Your task to perform on an android device: open app "Flipkart Online Shopping App" Image 0: 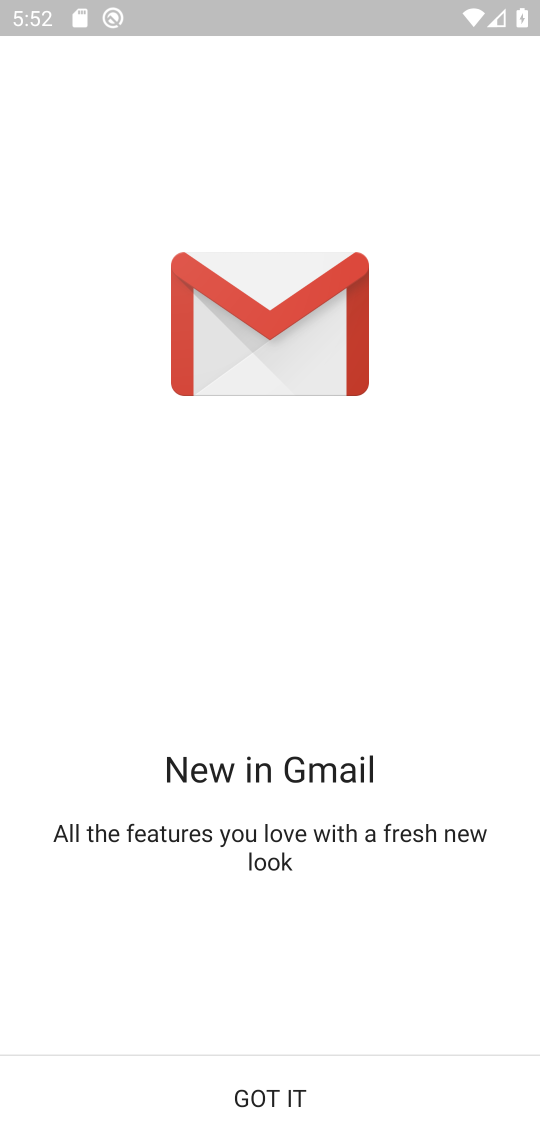
Step 0: press home button
Your task to perform on an android device: open app "Flipkart Online Shopping App" Image 1: 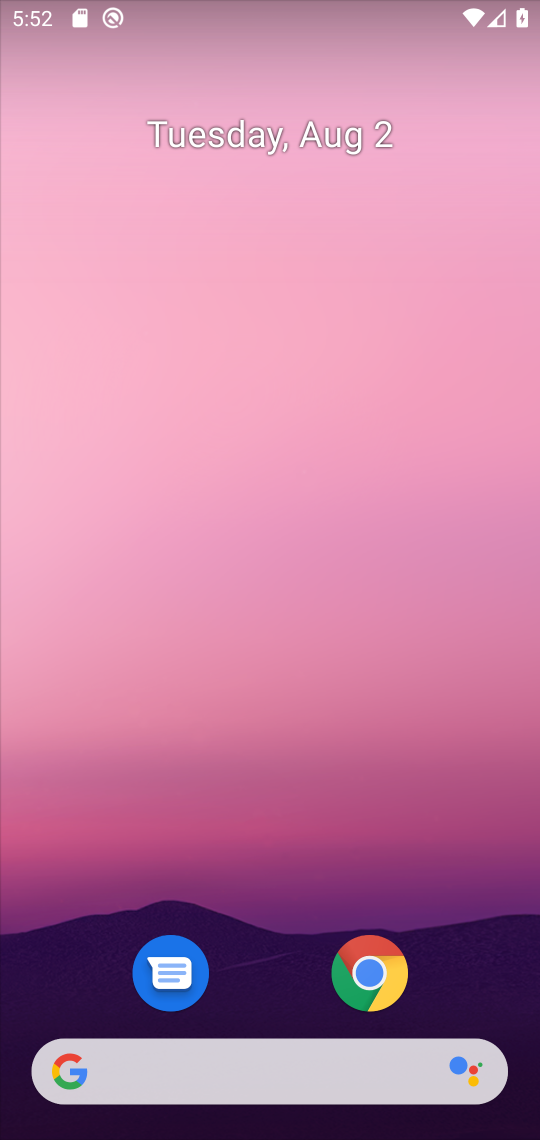
Step 1: drag from (237, 939) to (237, 179)
Your task to perform on an android device: open app "Flipkart Online Shopping App" Image 2: 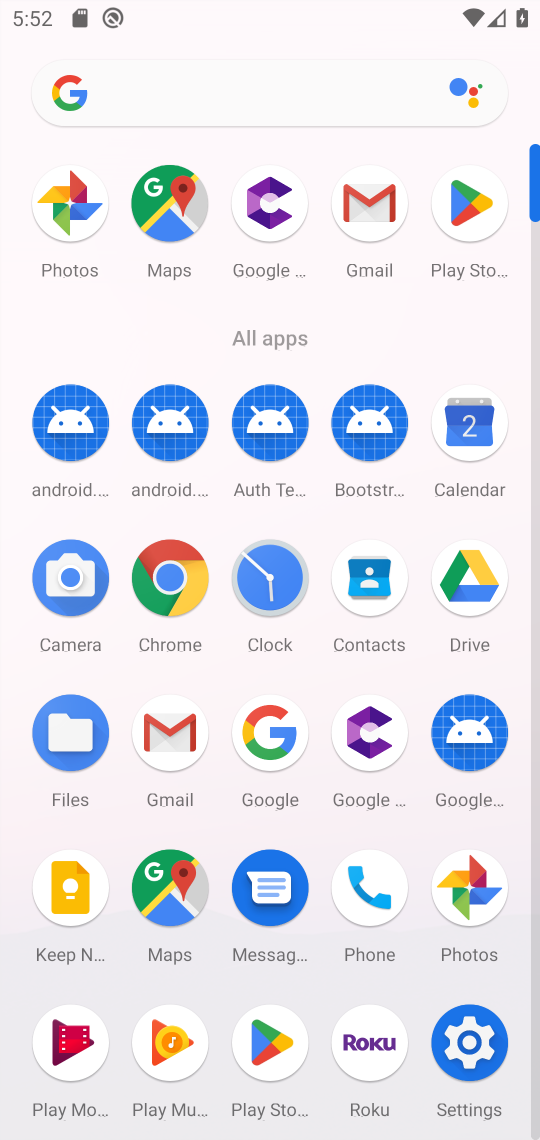
Step 2: click (460, 185)
Your task to perform on an android device: open app "Flipkart Online Shopping App" Image 3: 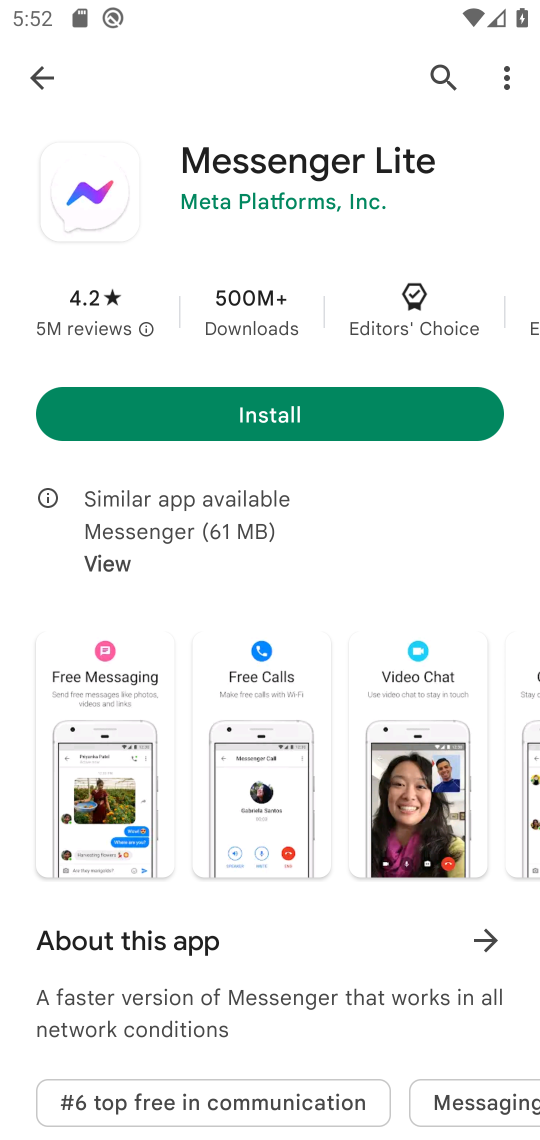
Step 3: click (444, 81)
Your task to perform on an android device: open app "Flipkart Online Shopping App" Image 4: 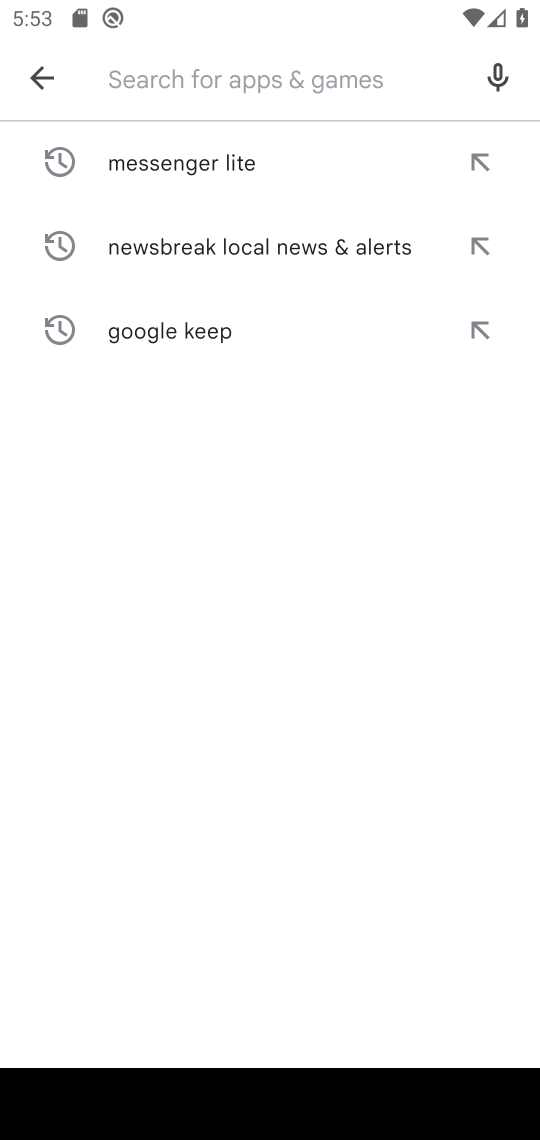
Step 4: type "flipkart online shopping app"
Your task to perform on an android device: open app "Flipkart Online Shopping App" Image 5: 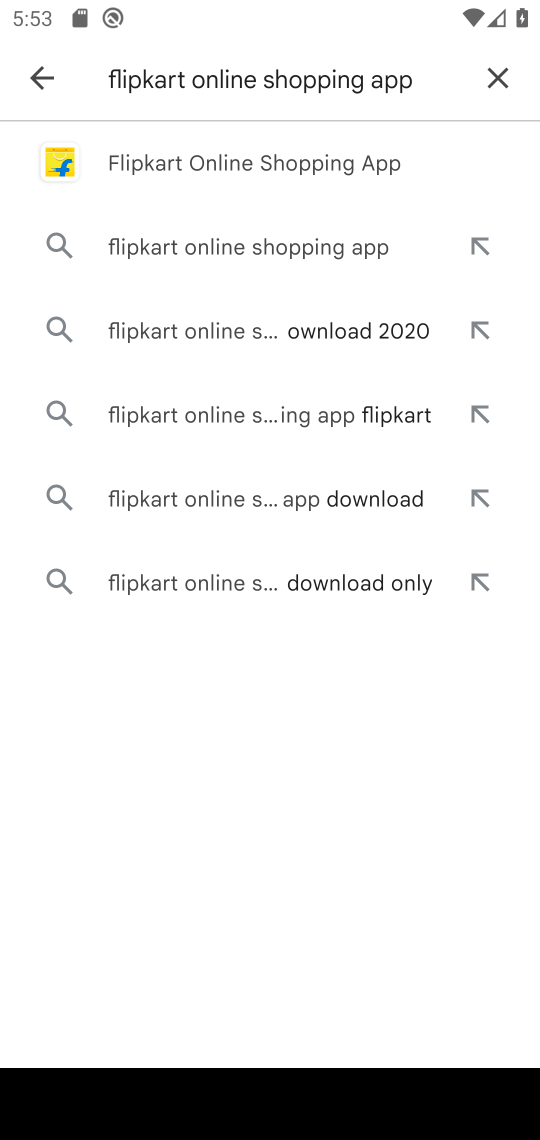
Step 5: click (278, 160)
Your task to perform on an android device: open app "Flipkart Online Shopping App" Image 6: 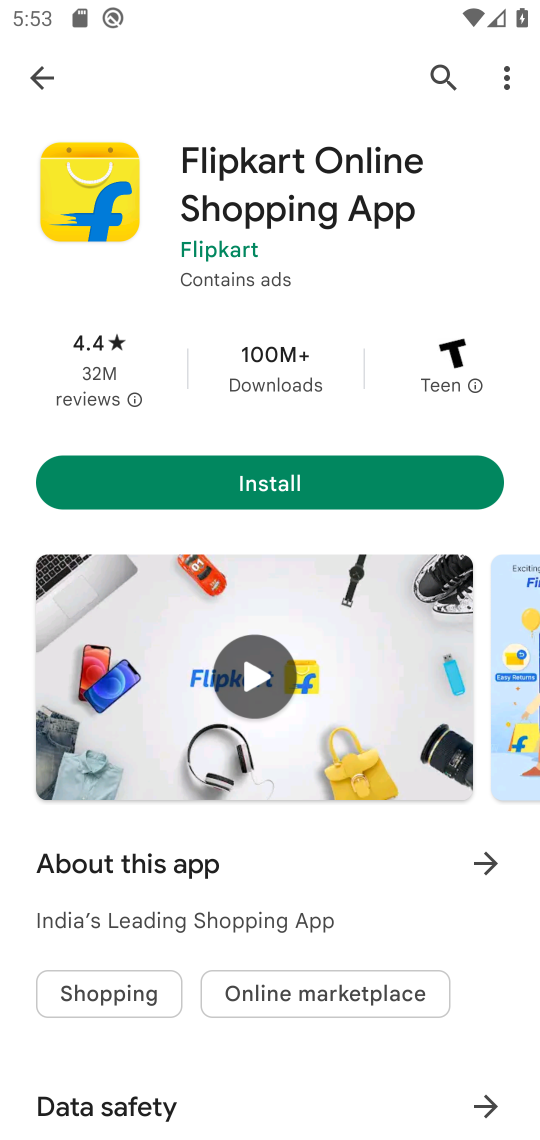
Step 6: task complete